Your task to perform on an android device: turn on location history Image 0: 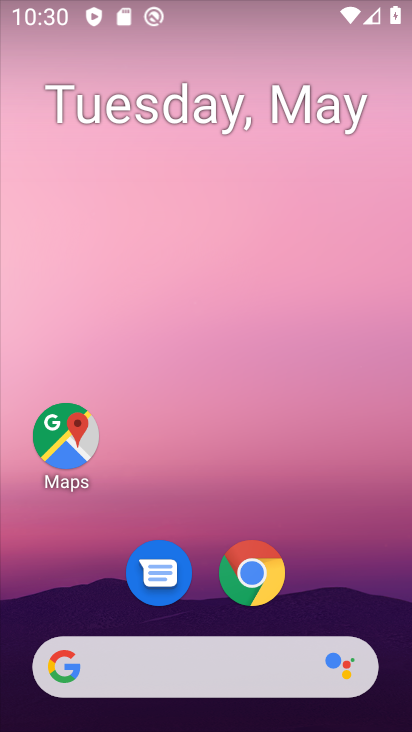
Step 0: drag from (352, 591) to (404, 65)
Your task to perform on an android device: turn on location history Image 1: 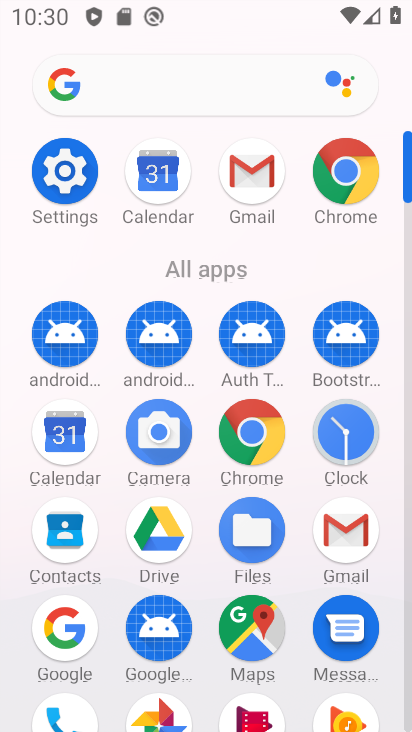
Step 1: drag from (203, 303) to (258, 87)
Your task to perform on an android device: turn on location history Image 2: 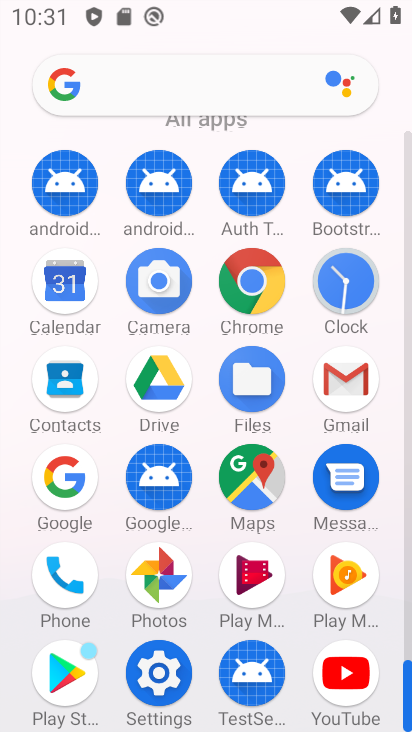
Step 2: click (155, 672)
Your task to perform on an android device: turn on location history Image 3: 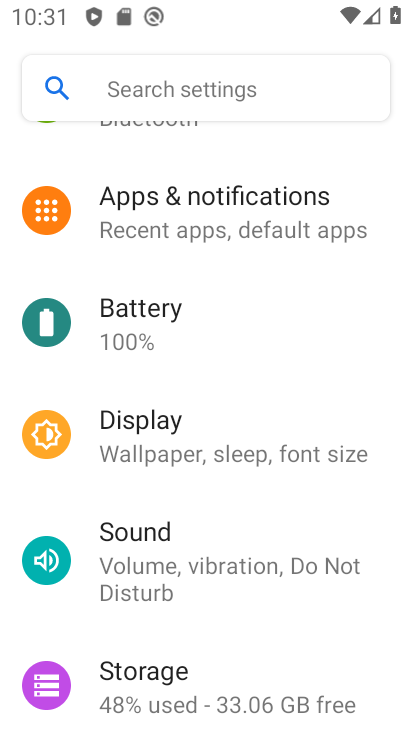
Step 3: drag from (219, 585) to (287, 212)
Your task to perform on an android device: turn on location history Image 4: 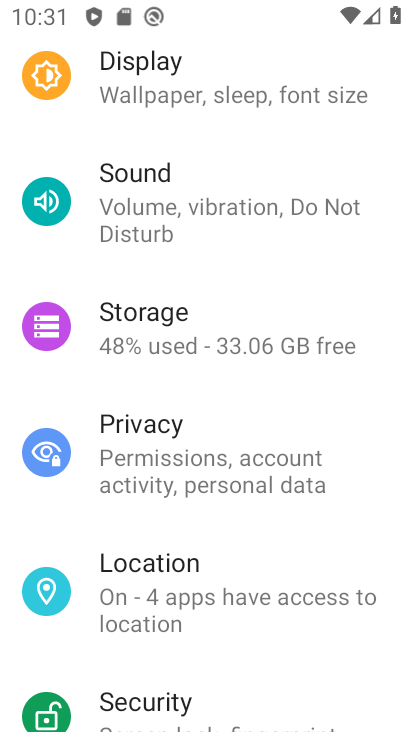
Step 4: click (162, 578)
Your task to perform on an android device: turn on location history Image 5: 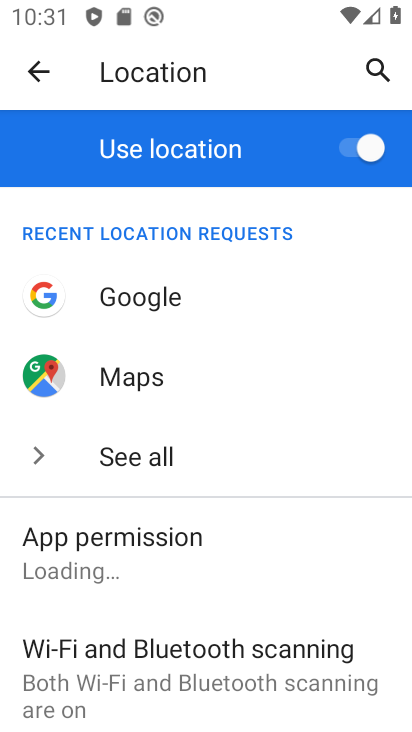
Step 5: task complete